Your task to perform on an android device: toggle javascript in the chrome app Image 0: 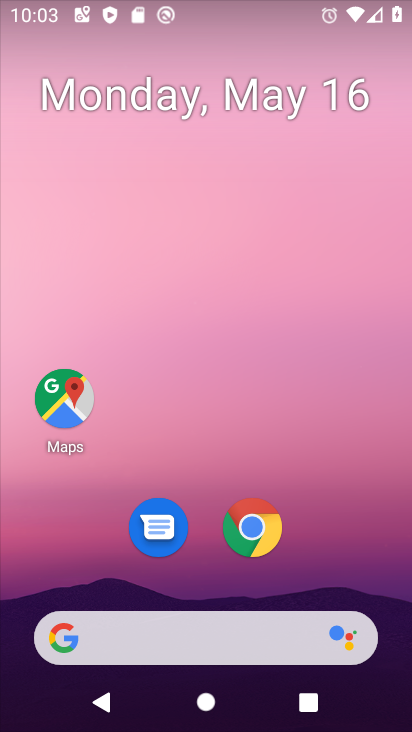
Step 0: click (246, 531)
Your task to perform on an android device: toggle javascript in the chrome app Image 1: 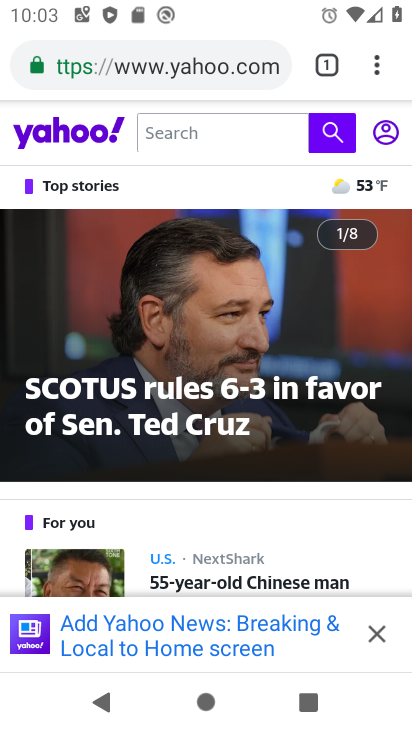
Step 1: click (377, 67)
Your task to perform on an android device: toggle javascript in the chrome app Image 2: 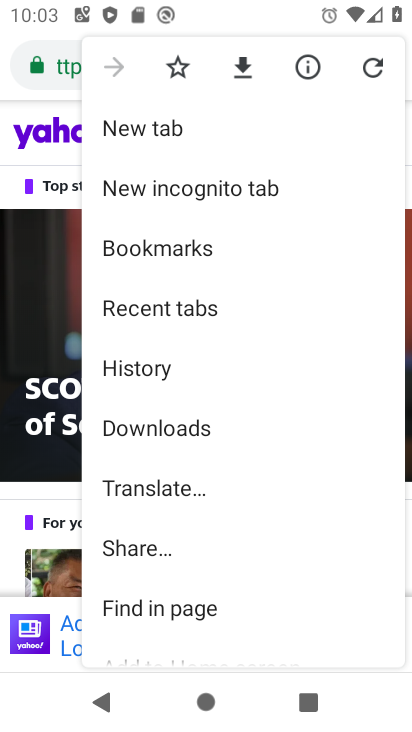
Step 2: drag from (257, 552) to (264, 166)
Your task to perform on an android device: toggle javascript in the chrome app Image 3: 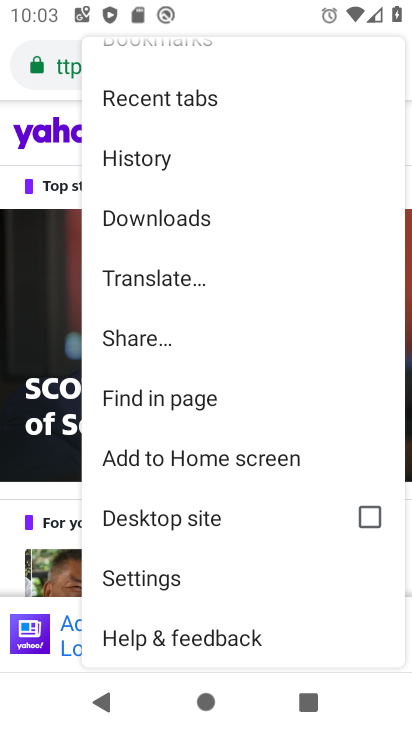
Step 3: click (167, 575)
Your task to perform on an android device: toggle javascript in the chrome app Image 4: 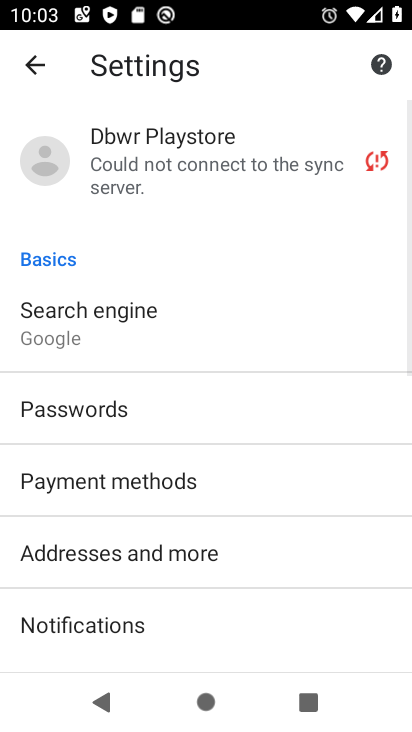
Step 4: drag from (193, 573) to (196, 142)
Your task to perform on an android device: toggle javascript in the chrome app Image 5: 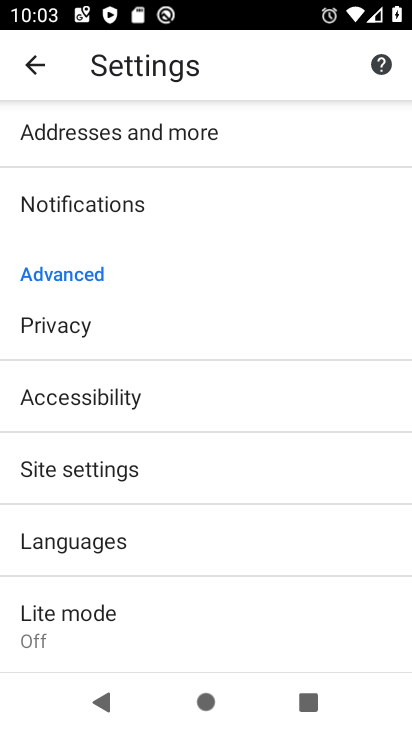
Step 5: click (88, 476)
Your task to perform on an android device: toggle javascript in the chrome app Image 6: 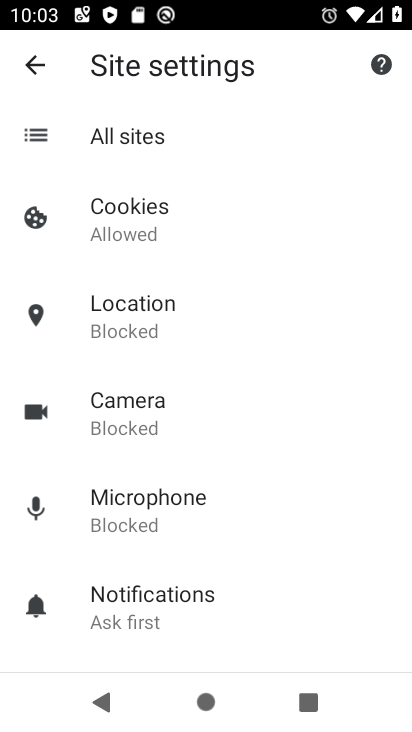
Step 6: drag from (254, 531) to (253, 285)
Your task to perform on an android device: toggle javascript in the chrome app Image 7: 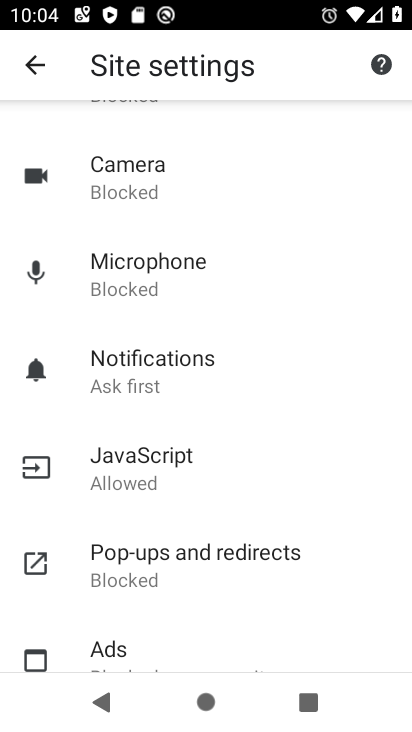
Step 7: click (131, 469)
Your task to perform on an android device: toggle javascript in the chrome app Image 8: 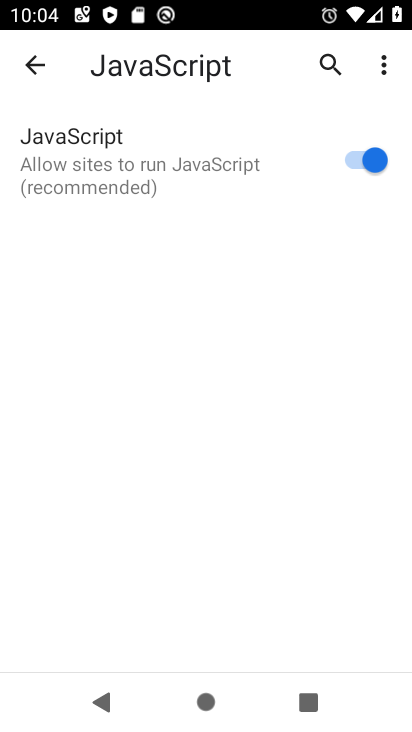
Step 8: click (368, 162)
Your task to perform on an android device: toggle javascript in the chrome app Image 9: 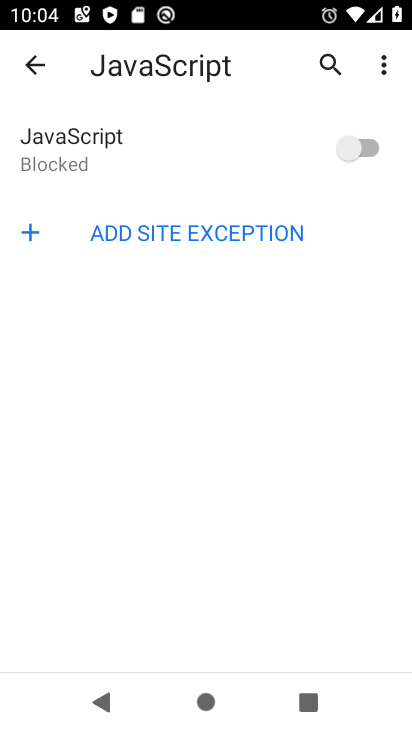
Step 9: task complete